Your task to perform on an android device: Open location settings Image 0: 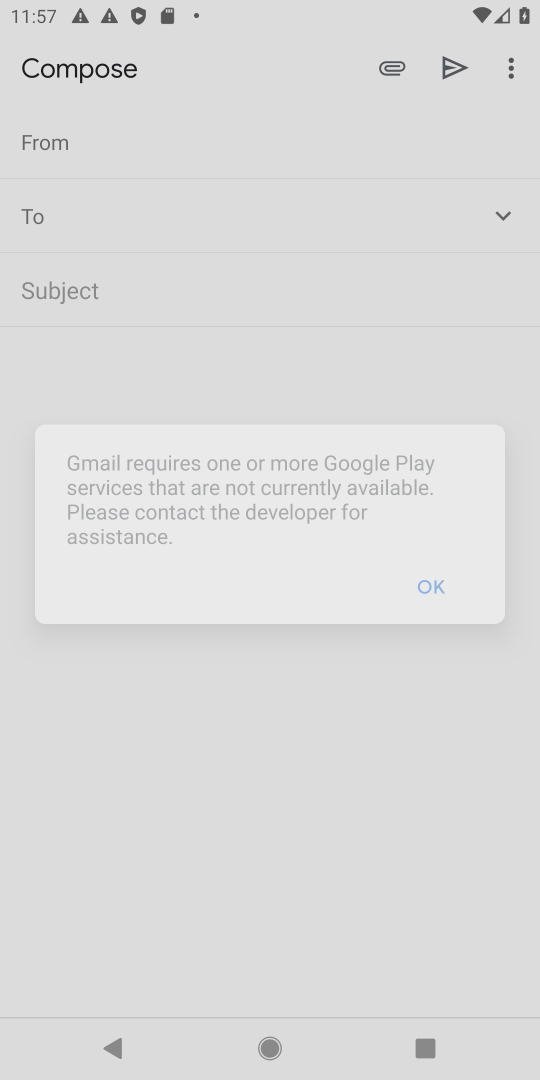
Step 0: press home button
Your task to perform on an android device: Open location settings Image 1: 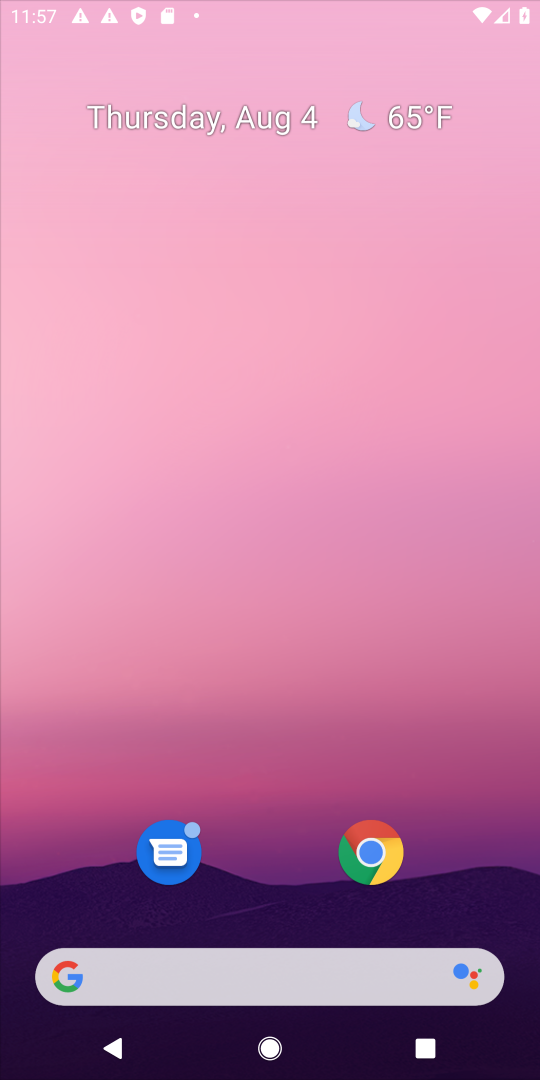
Step 1: press home button
Your task to perform on an android device: Open location settings Image 2: 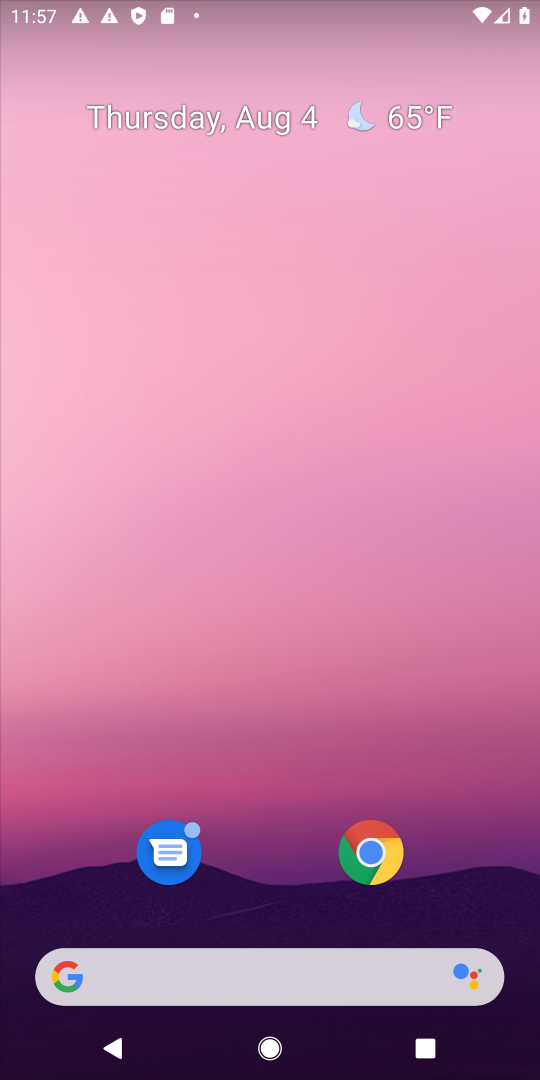
Step 2: drag from (428, 632) to (376, 168)
Your task to perform on an android device: Open location settings Image 3: 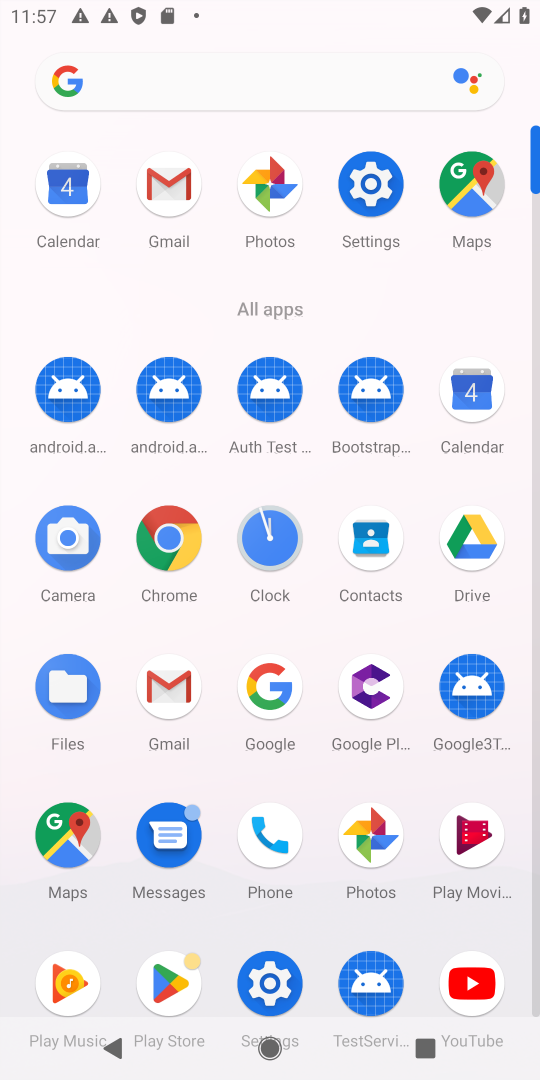
Step 3: click (267, 992)
Your task to perform on an android device: Open location settings Image 4: 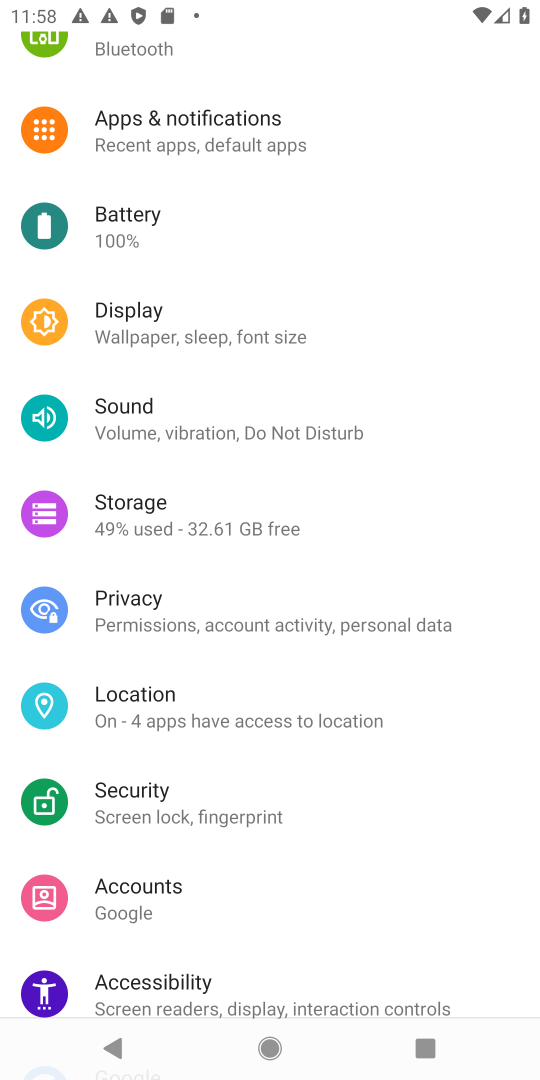
Step 4: click (136, 691)
Your task to perform on an android device: Open location settings Image 5: 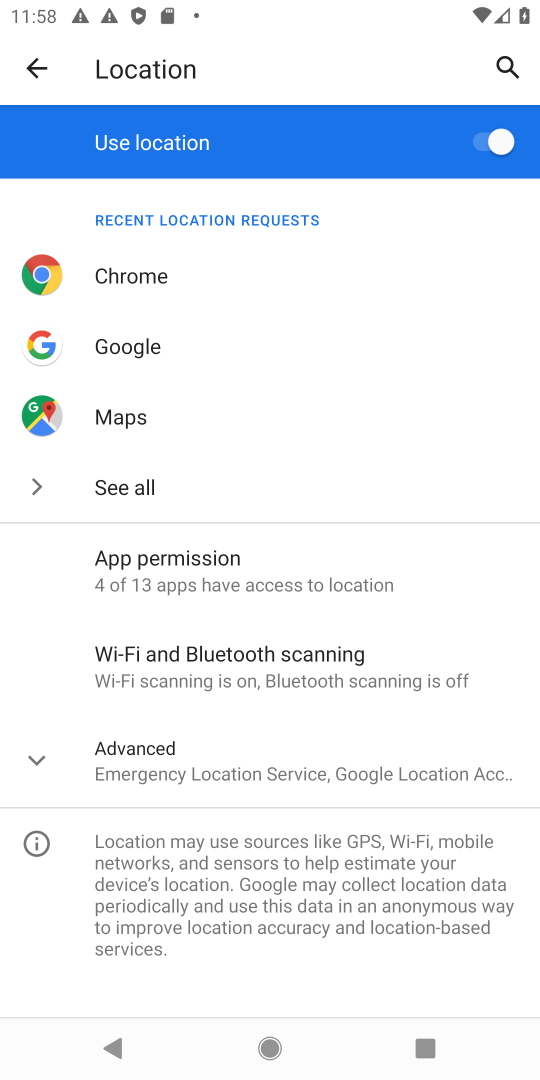
Step 5: drag from (265, 757) to (269, 463)
Your task to perform on an android device: Open location settings Image 6: 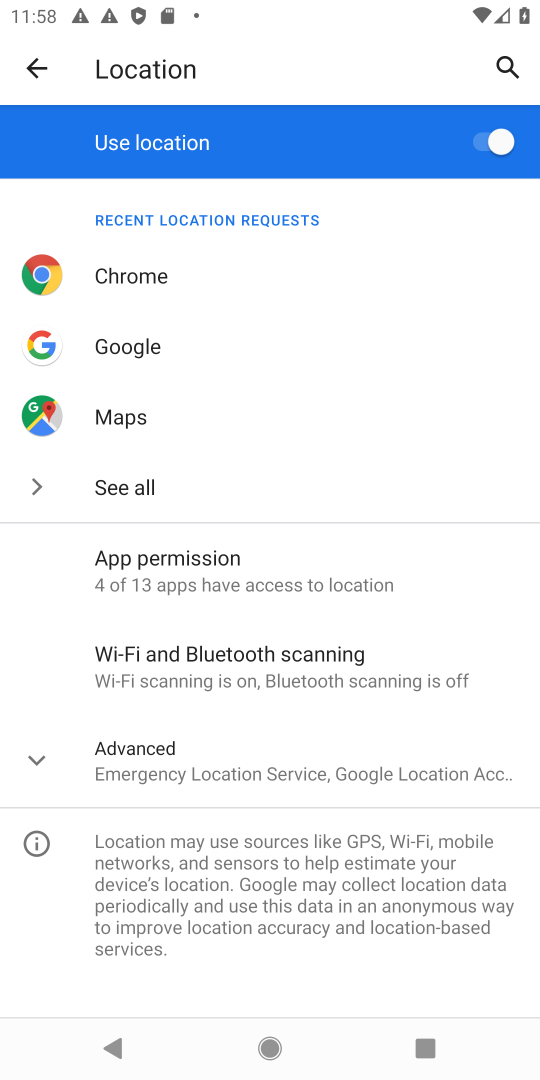
Step 6: click (25, 755)
Your task to perform on an android device: Open location settings Image 7: 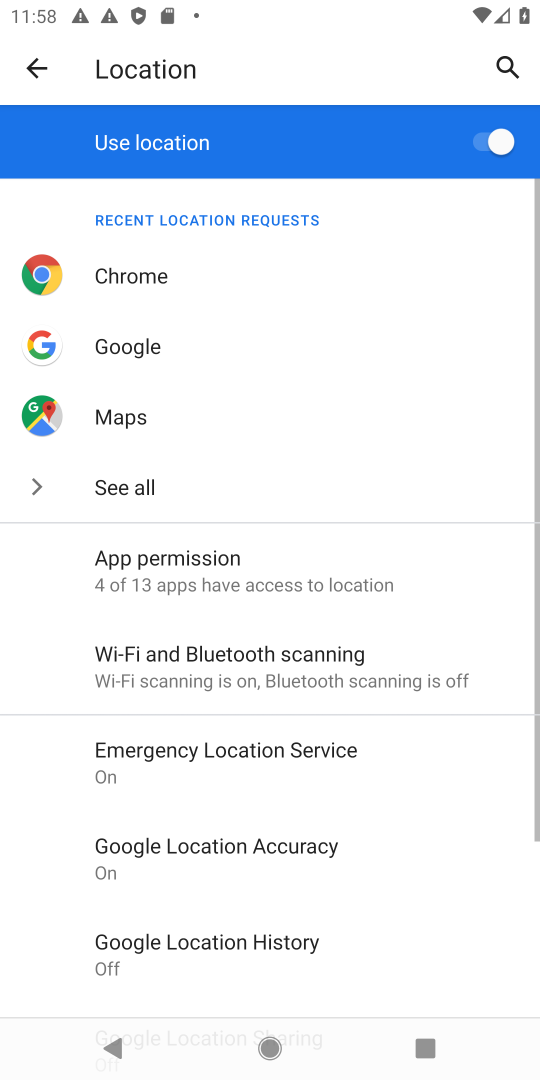
Step 7: task complete